Your task to perform on an android device: toggle translation in the chrome app Image 0: 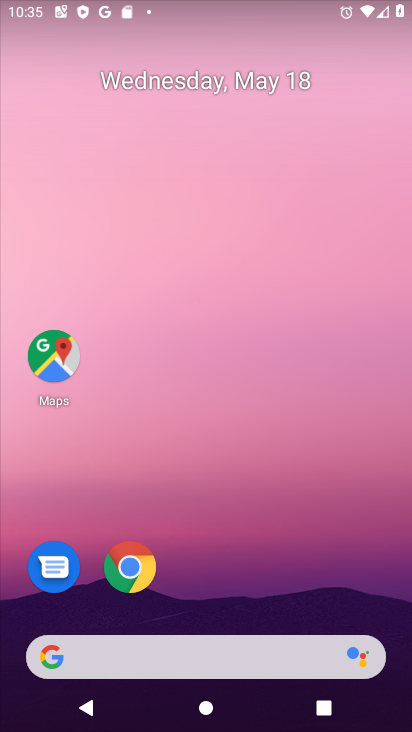
Step 0: click (144, 571)
Your task to perform on an android device: toggle translation in the chrome app Image 1: 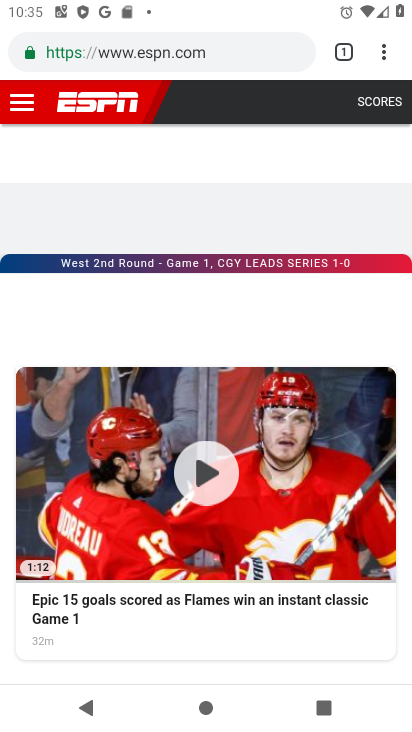
Step 1: drag from (378, 54) to (224, 604)
Your task to perform on an android device: toggle translation in the chrome app Image 2: 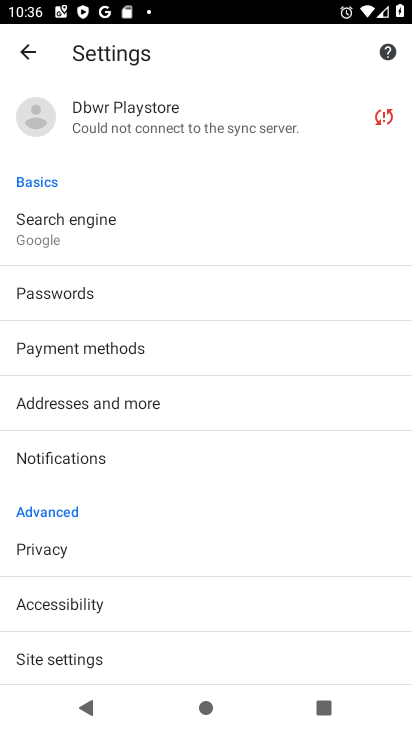
Step 2: drag from (110, 641) to (157, 175)
Your task to perform on an android device: toggle translation in the chrome app Image 3: 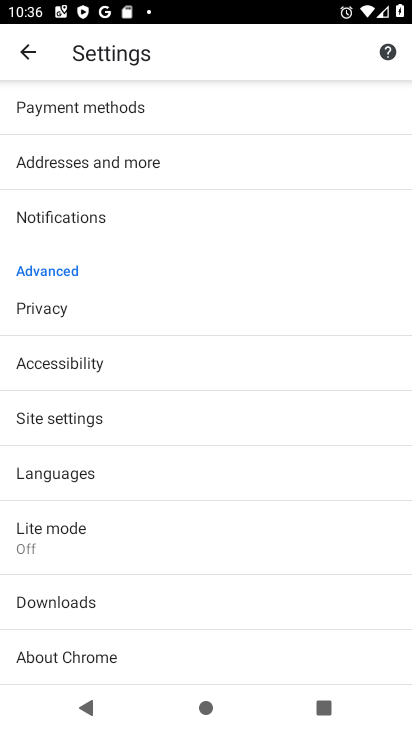
Step 3: click (83, 483)
Your task to perform on an android device: toggle translation in the chrome app Image 4: 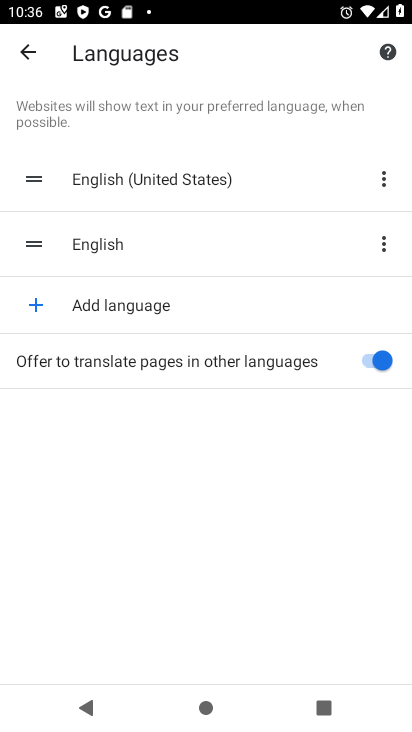
Step 4: click (377, 360)
Your task to perform on an android device: toggle translation in the chrome app Image 5: 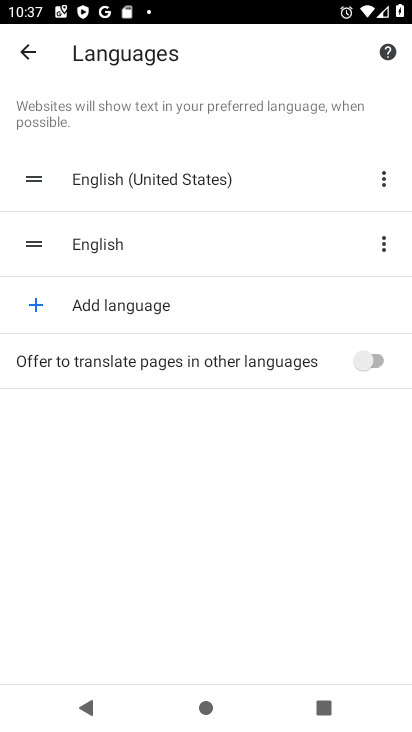
Step 5: task complete